Your task to perform on an android device: Go to battery settings Image 0: 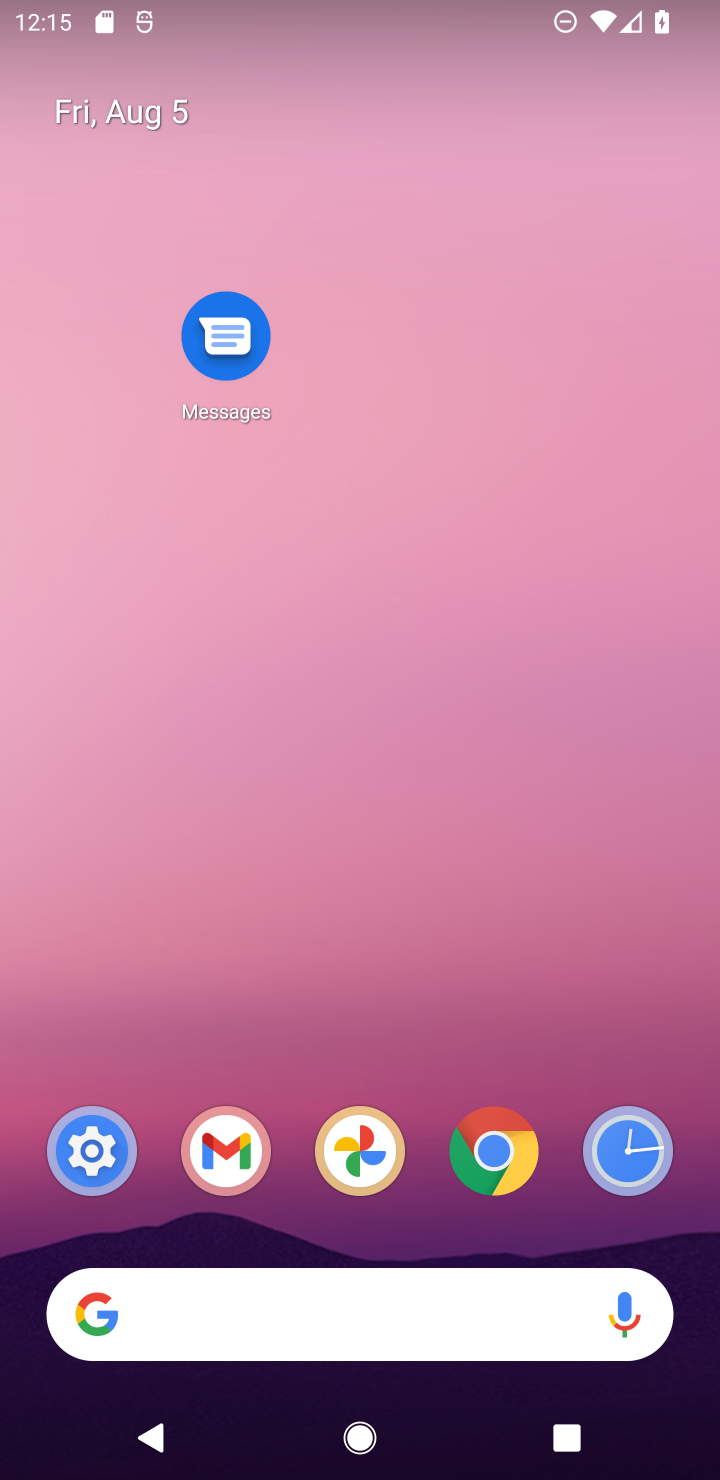
Step 0: click (79, 1156)
Your task to perform on an android device: Go to battery settings Image 1: 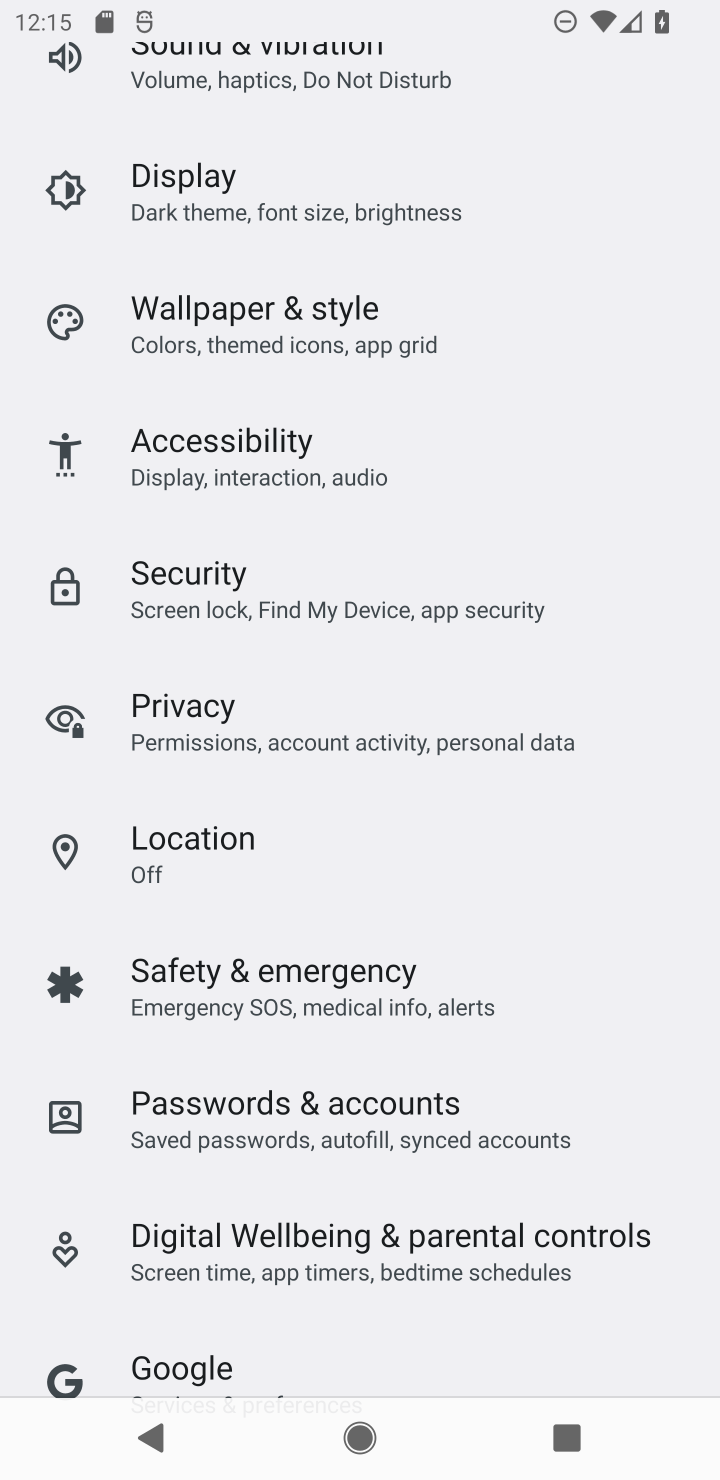
Step 1: drag from (203, 505) to (217, 960)
Your task to perform on an android device: Go to battery settings Image 2: 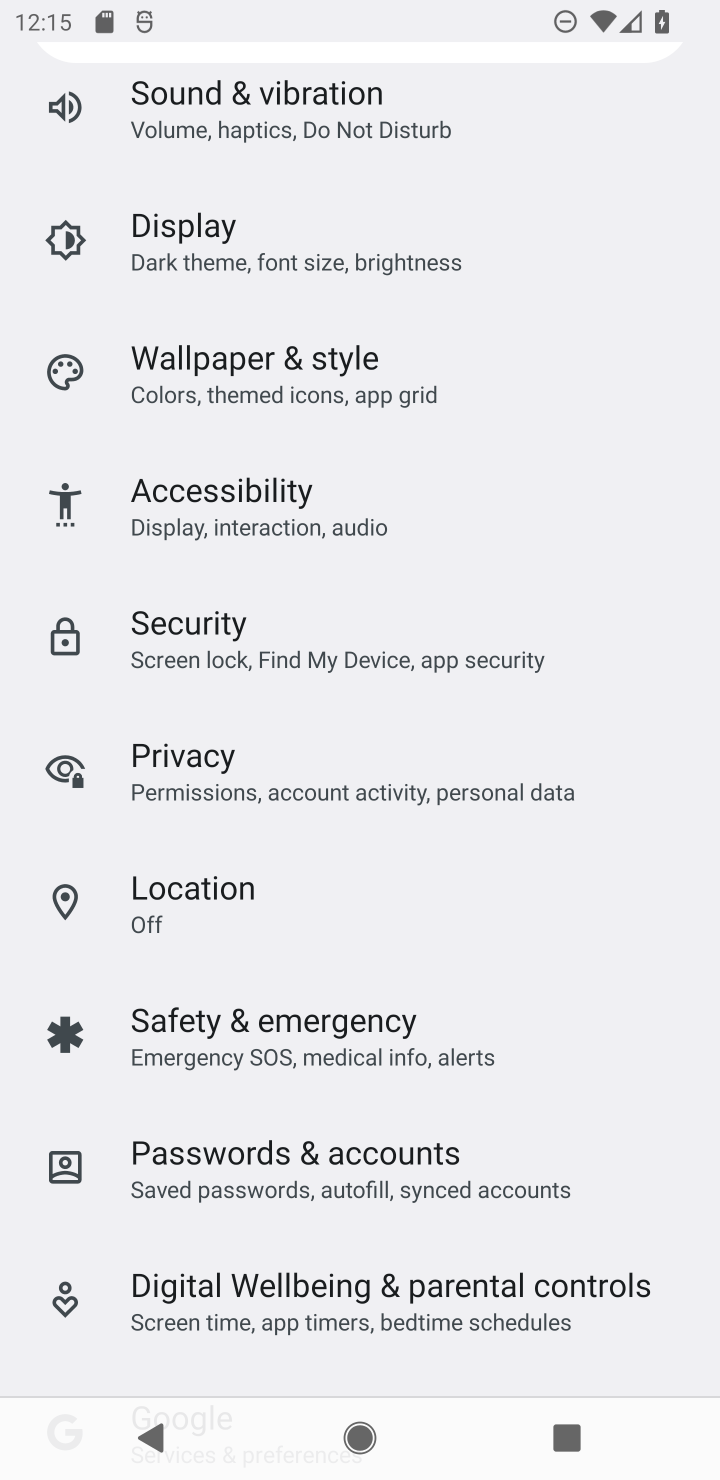
Step 2: drag from (319, 339) to (289, 1414)
Your task to perform on an android device: Go to battery settings Image 3: 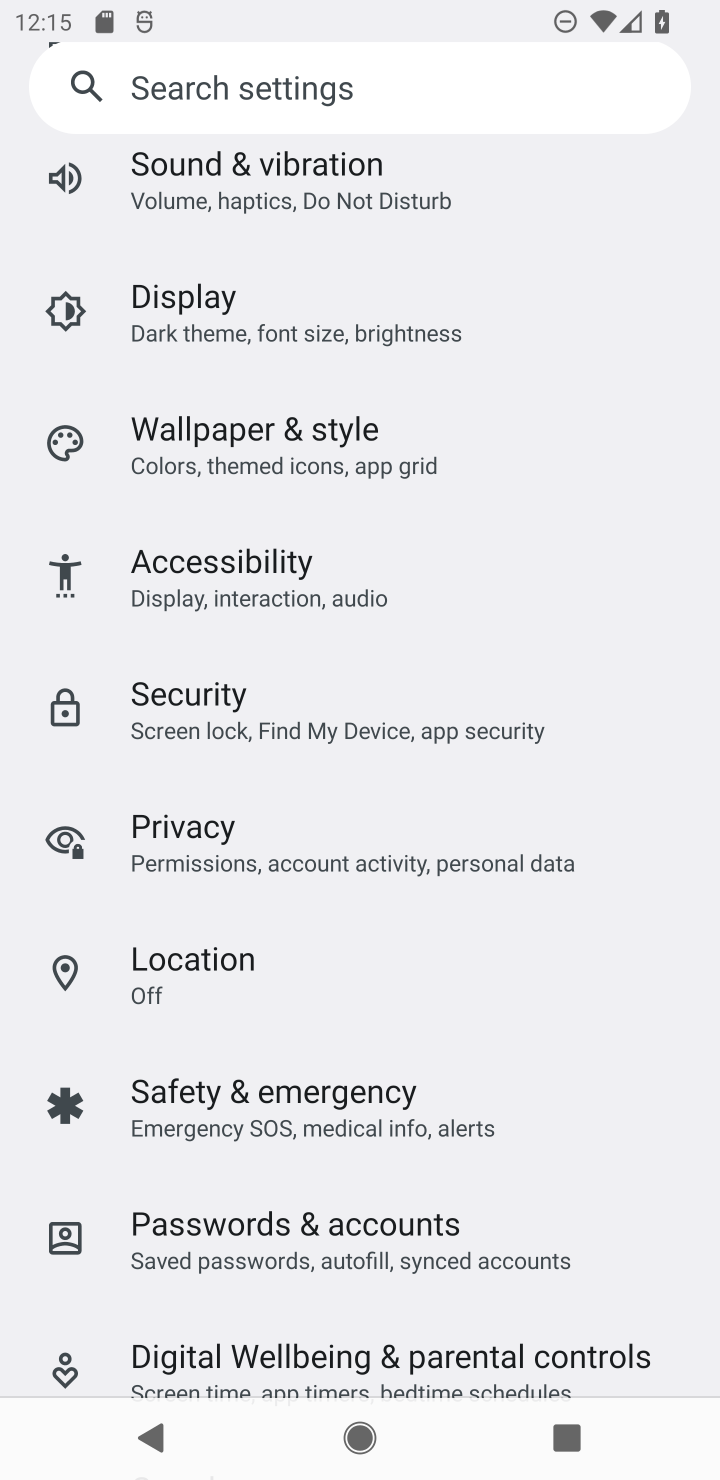
Step 3: drag from (335, 534) to (277, 980)
Your task to perform on an android device: Go to battery settings Image 4: 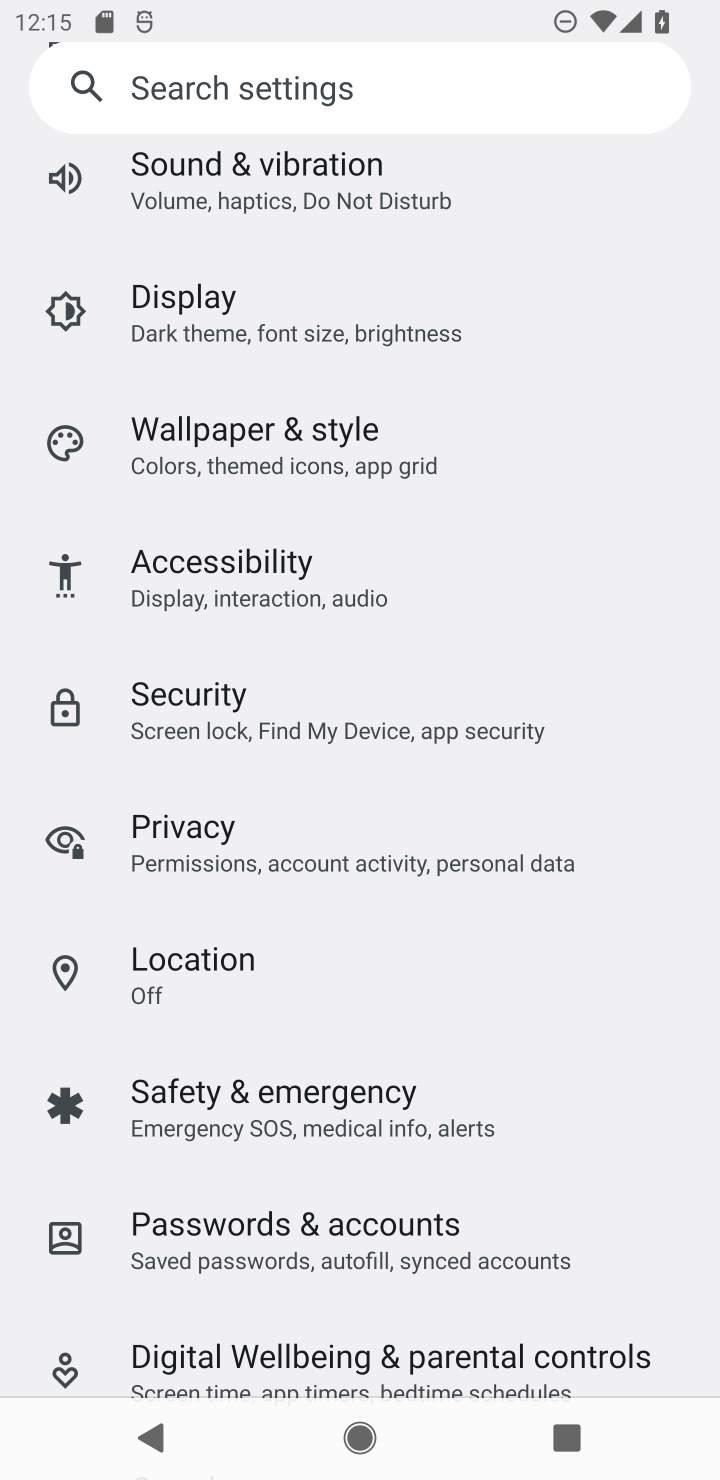
Step 4: drag from (293, 349) to (221, 1014)
Your task to perform on an android device: Go to battery settings Image 5: 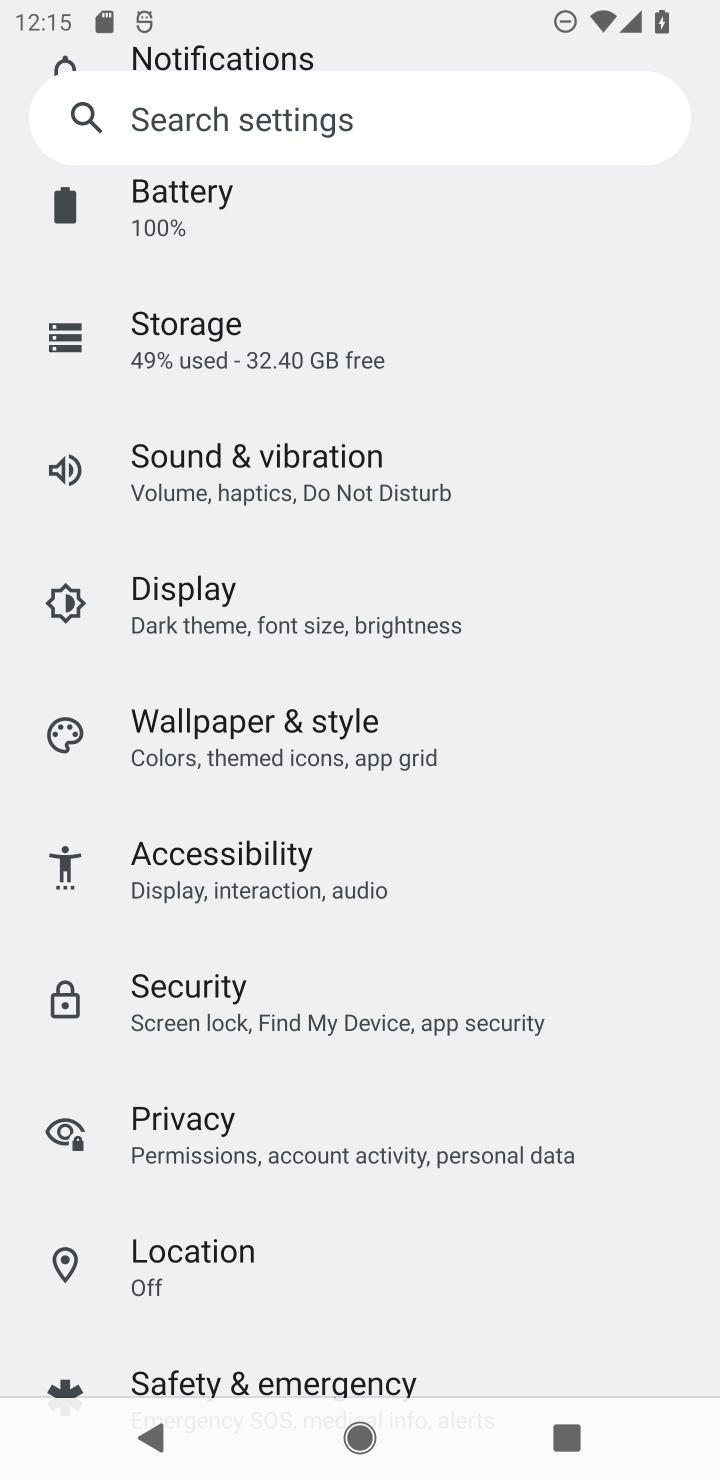
Step 5: click (159, 216)
Your task to perform on an android device: Go to battery settings Image 6: 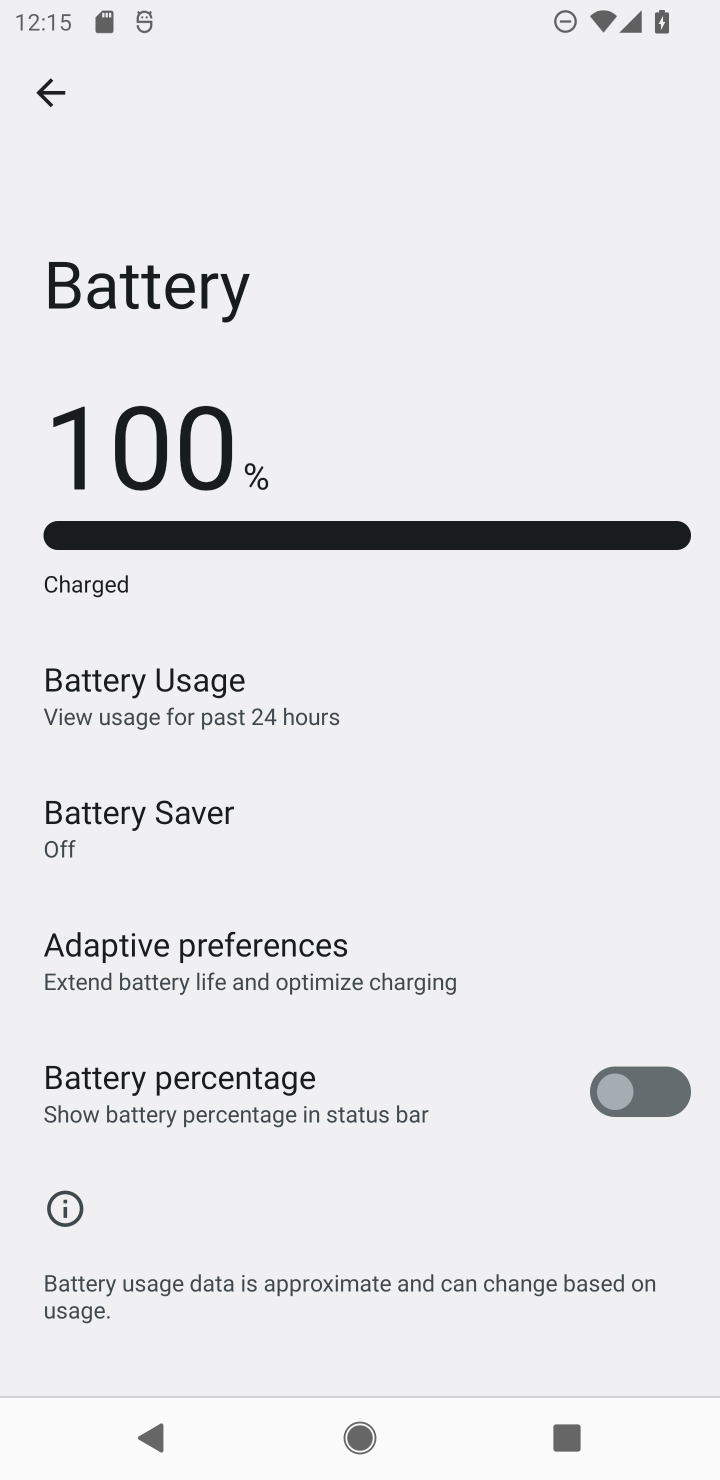
Step 6: task complete